Your task to perform on an android device: Go to settings Image 0: 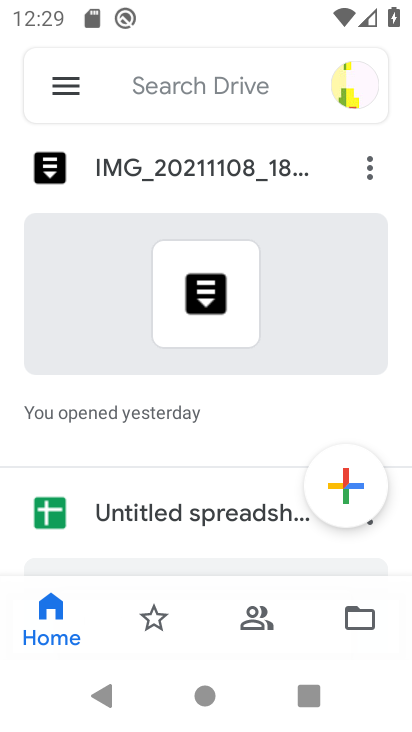
Step 0: press home button
Your task to perform on an android device: Go to settings Image 1: 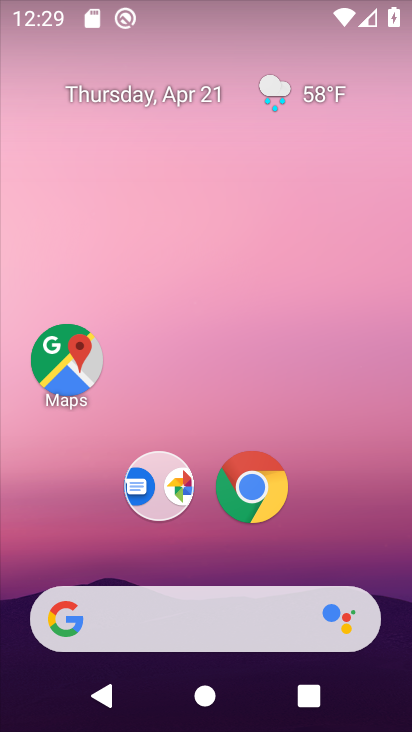
Step 1: drag from (239, 605) to (289, 134)
Your task to perform on an android device: Go to settings Image 2: 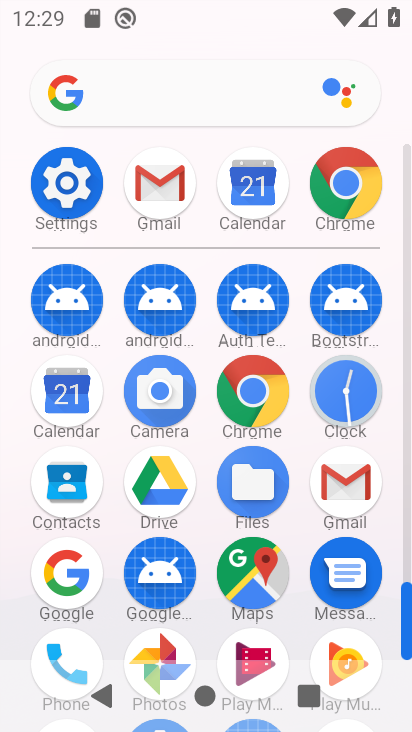
Step 2: click (56, 177)
Your task to perform on an android device: Go to settings Image 3: 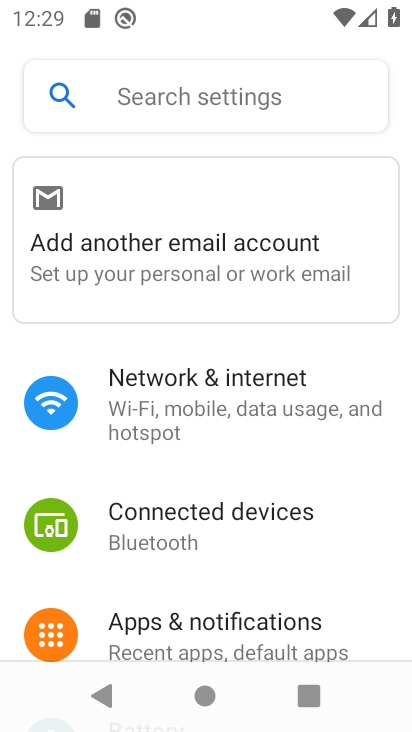
Step 3: task complete